Your task to perform on an android device: uninstall "Google Docs" Image 0: 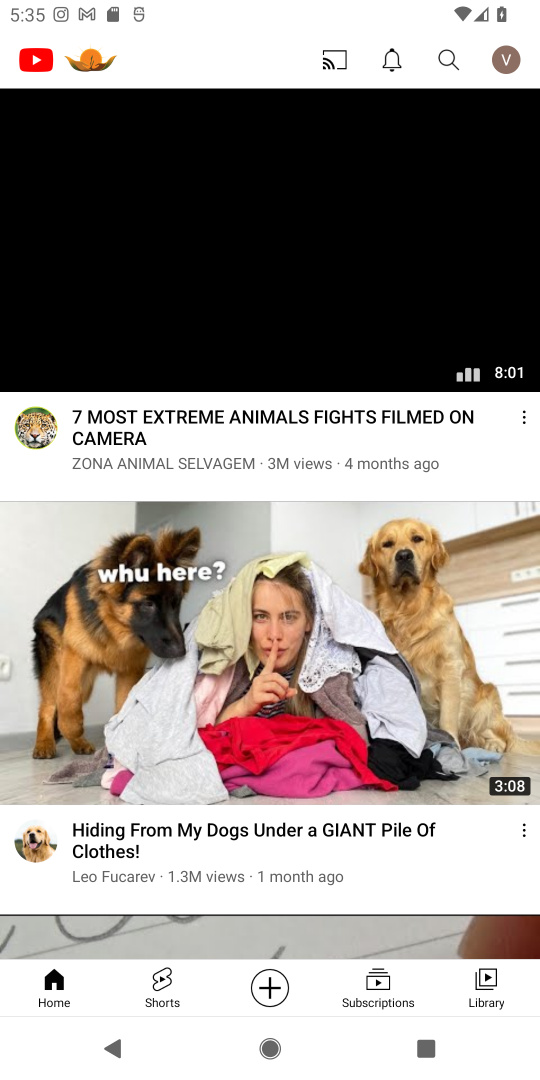
Step 0: press home button
Your task to perform on an android device: uninstall "Google Docs" Image 1: 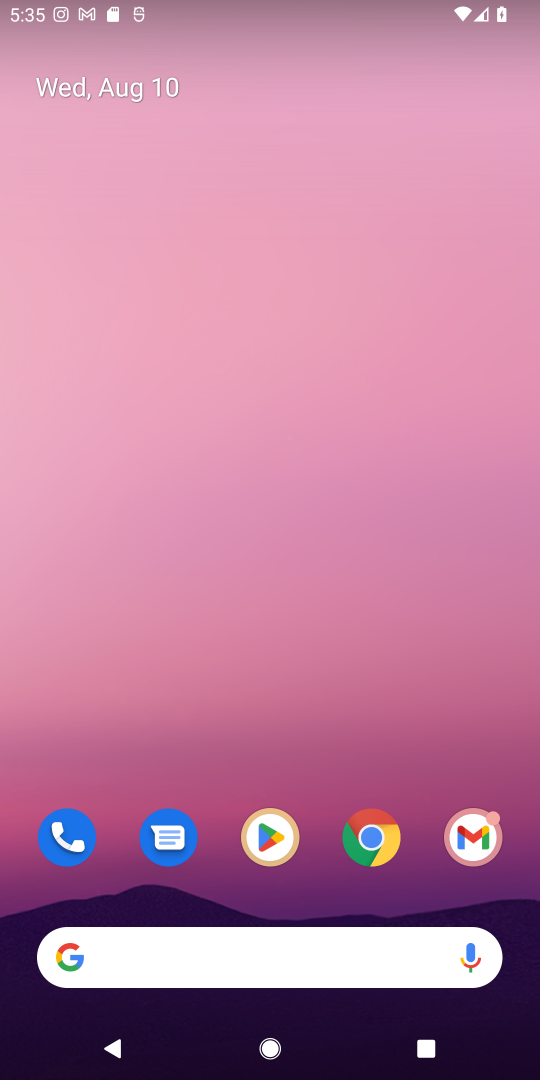
Step 1: click (280, 830)
Your task to perform on an android device: uninstall "Google Docs" Image 2: 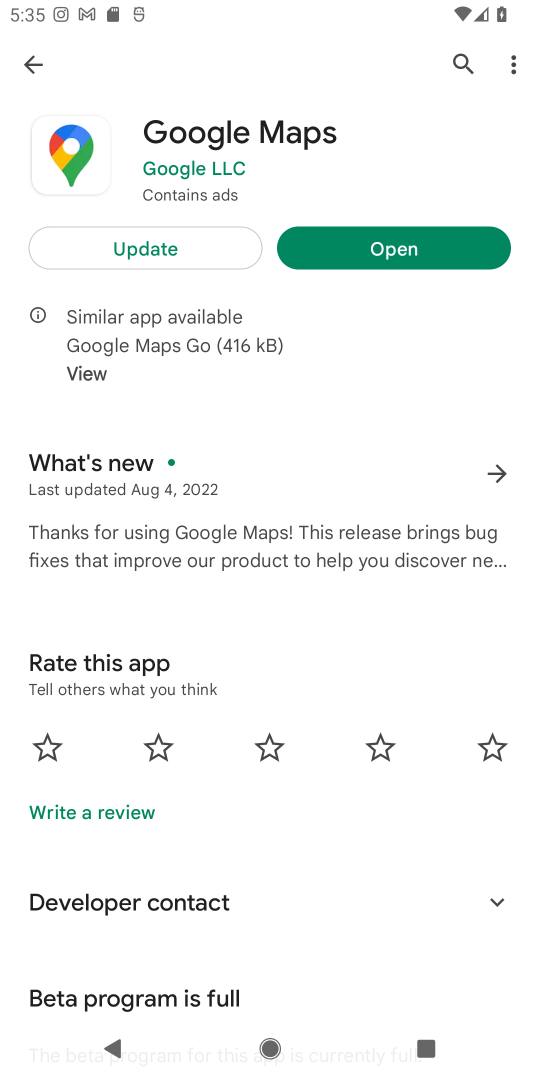
Step 2: click (466, 61)
Your task to perform on an android device: uninstall "Google Docs" Image 3: 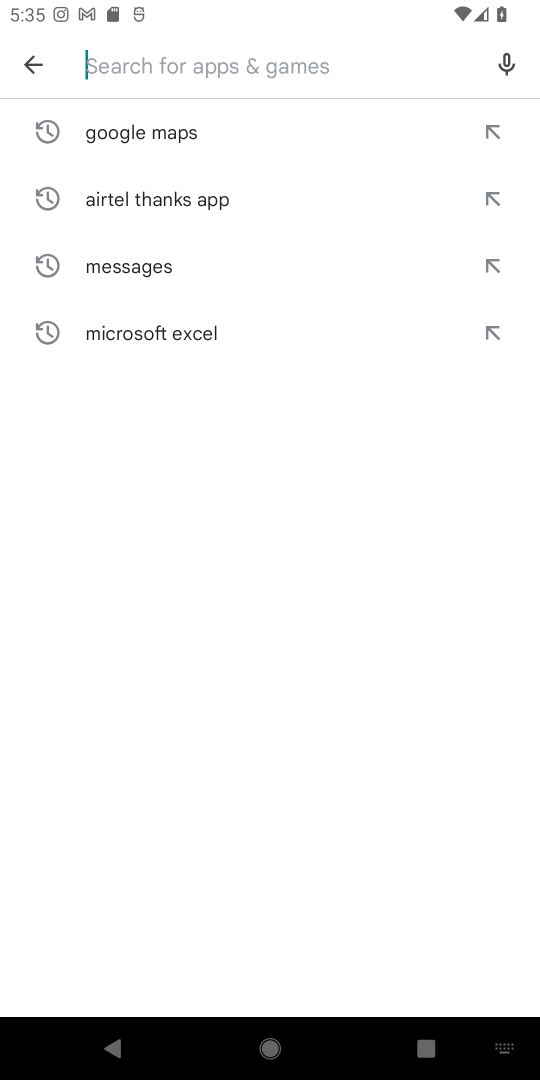
Step 3: type "Google Docs"
Your task to perform on an android device: uninstall "Google Docs" Image 4: 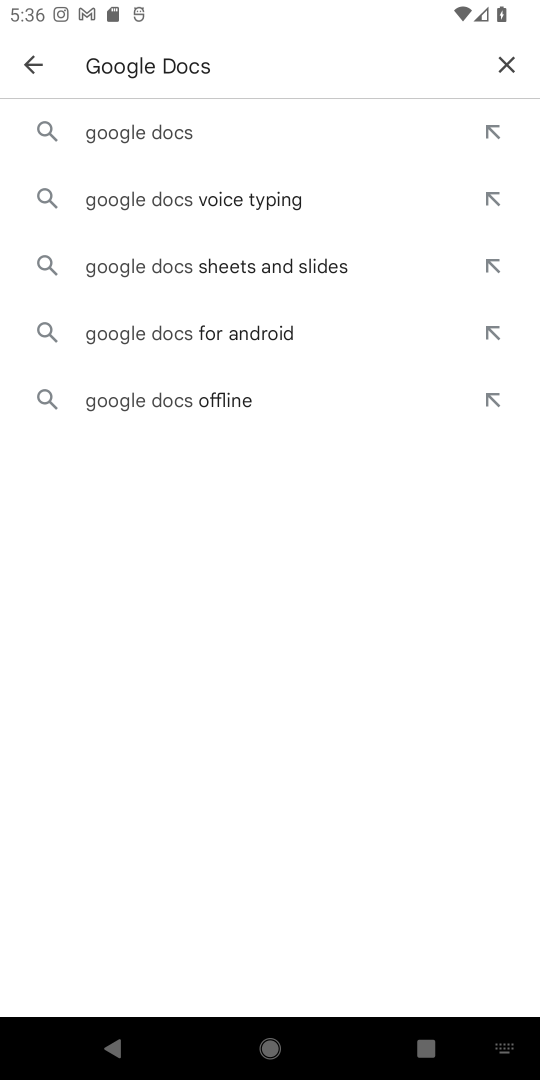
Step 4: click (107, 144)
Your task to perform on an android device: uninstall "Google Docs" Image 5: 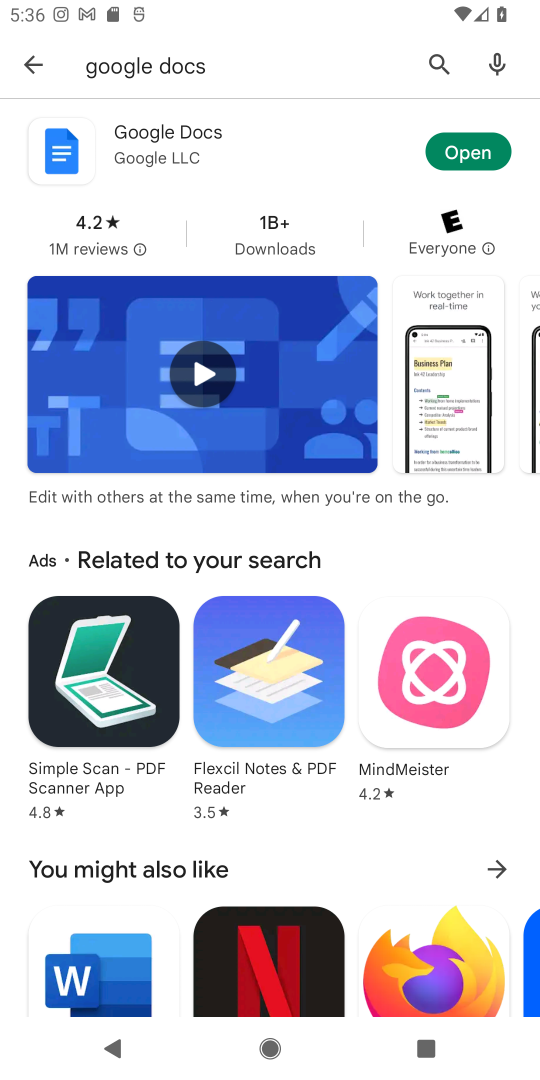
Step 5: click (149, 141)
Your task to perform on an android device: uninstall "Google Docs" Image 6: 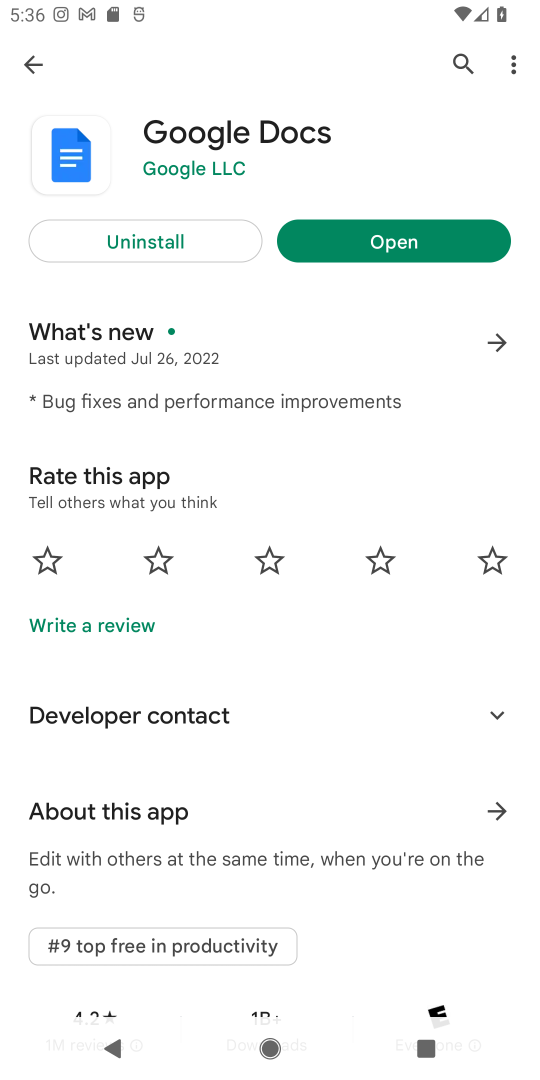
Step 6: click (183, 239)
Your task to perform on an android device: uninstall "Google Docs" Image 7: 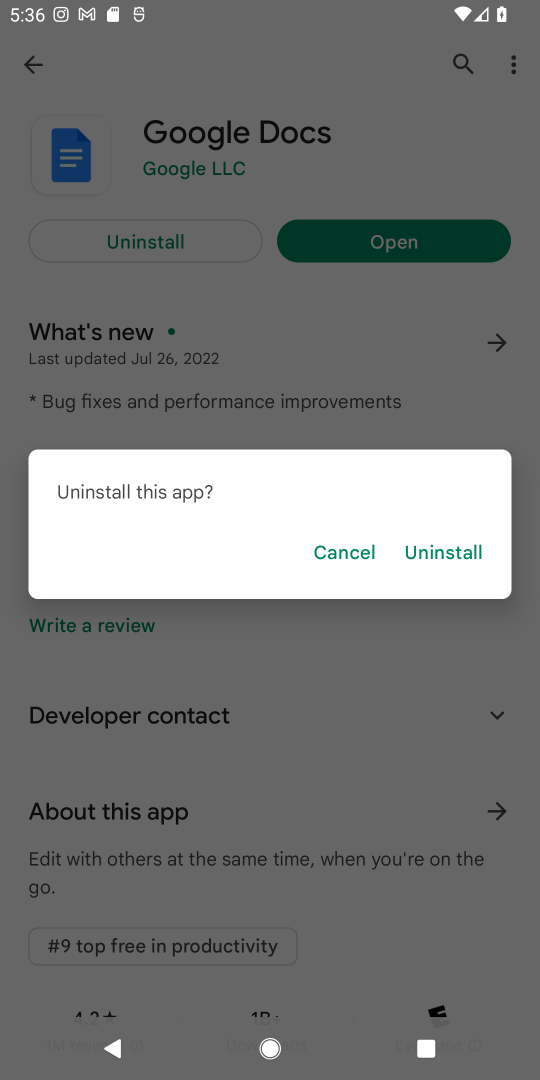
Step 7: click (456, 556)
Your task to perform on an android device: uninstall "Google Docs" Image 8: 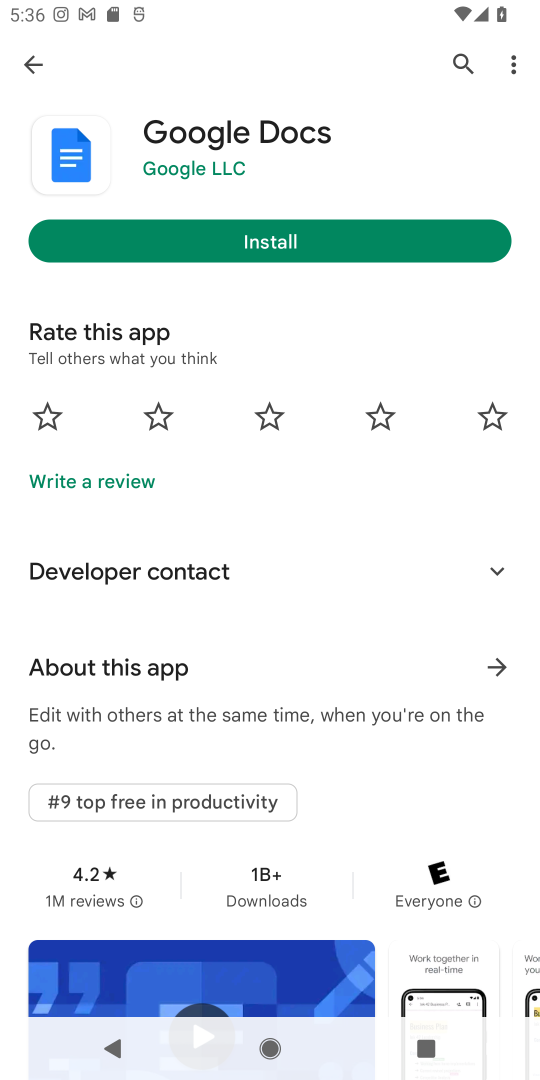
Step 8: task complete